Your task to perform on an android device: turn off picture-in-picture Image 0: 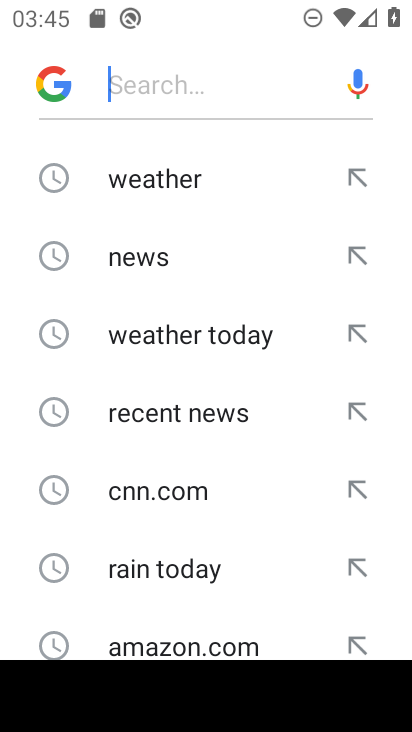
Step 0: press back button
Your task to perform on an android device: turn off picture-in-picture Image 1: 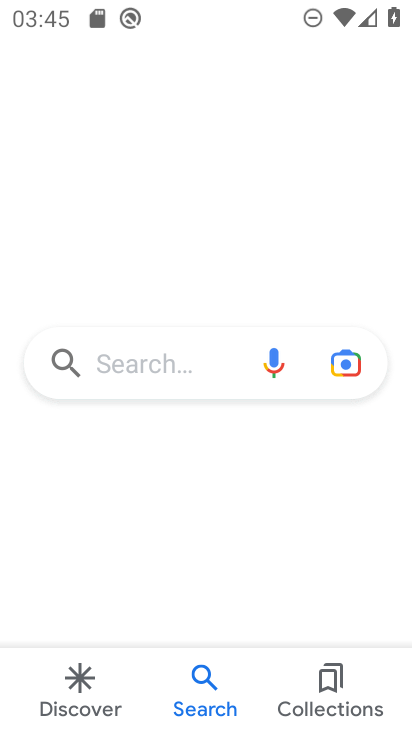
Step 1: press back button
Your task to perform on an android device: turn off picture-in-picture Image 2: 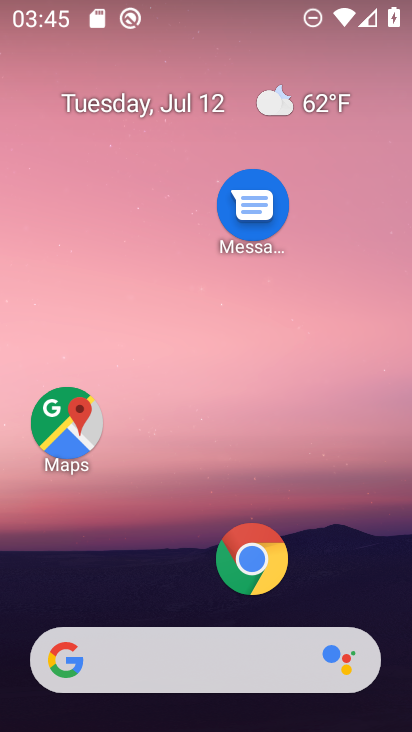
Step 2: drag from (117, 609) to (252, 4)
Your task to perform on an android device: turn off picture-in-picture Image 3: 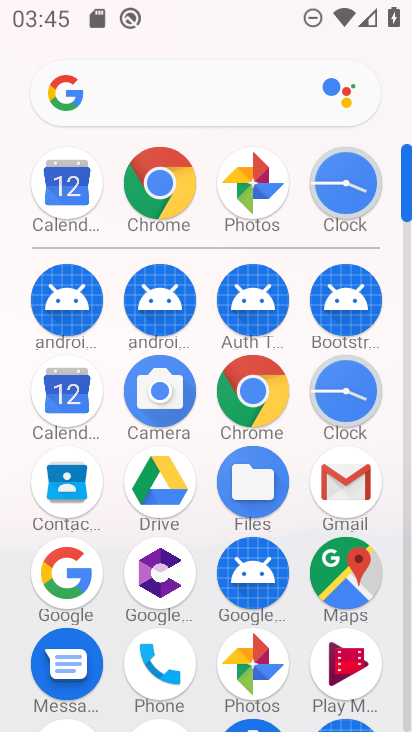
Step 3: drag from (163, 629) to (264, 53)
Your task to perform on an android device: turn off picture-in-picture Image 4: 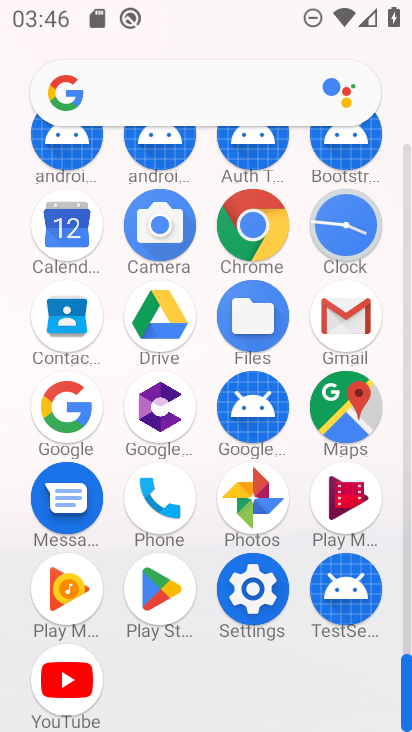
Step 4: click (253, 566)
Your task to perform on an android device: turn off picture-in-picture Image 5: 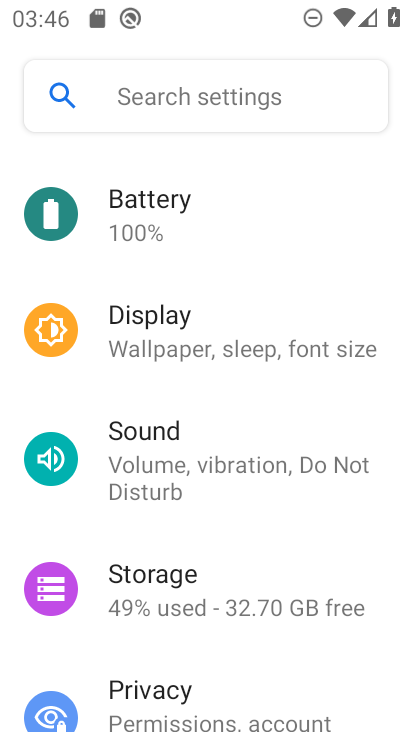
Step 5: drag from (223, 220) to (172, 698)
Your task to perform on an android device: turn off picture-in-picture Image 6: 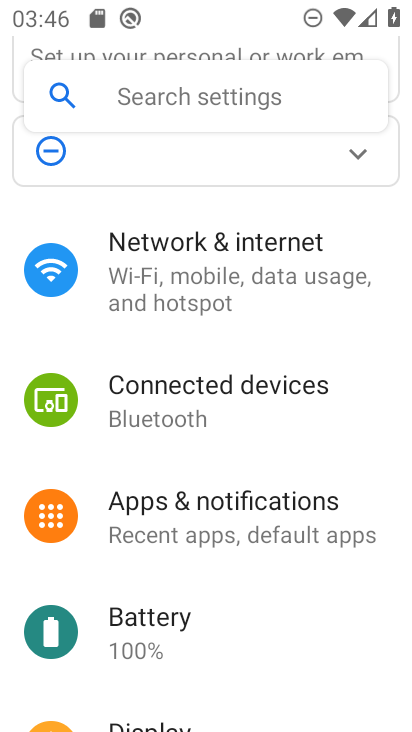
Step 6: click (198, 510)
Your task to perform on an android device: turn off picture-in-picture Image 7: 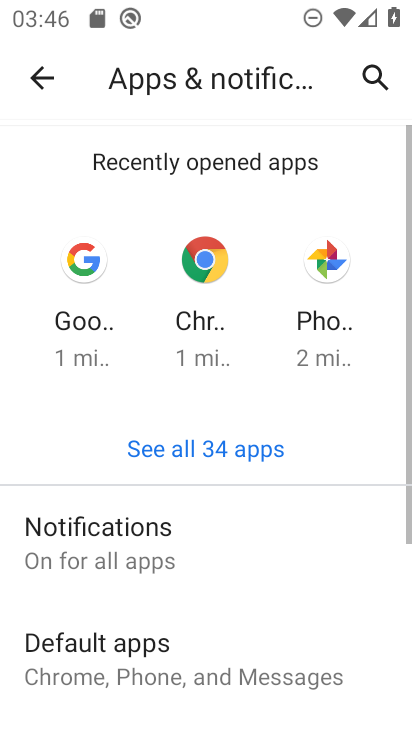
Step 7: drag from (175, 558) to (233, 177)
Your task to perform on an android device: turn off picture-in-picture Image 8: 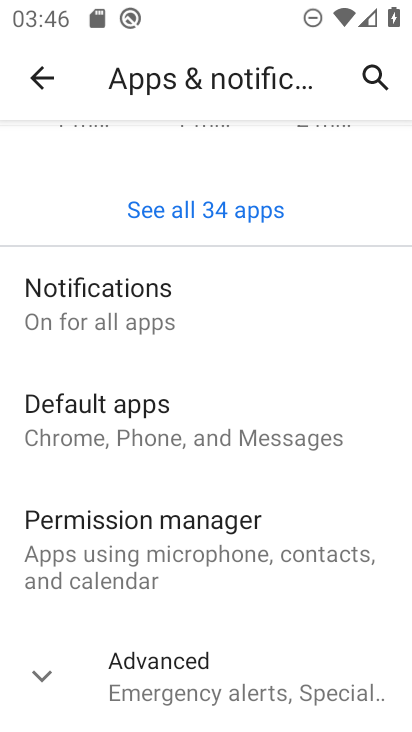
Step 8: click (159, 648)
Your task to perform on an android device: turn off picture-in-picture Image 9: 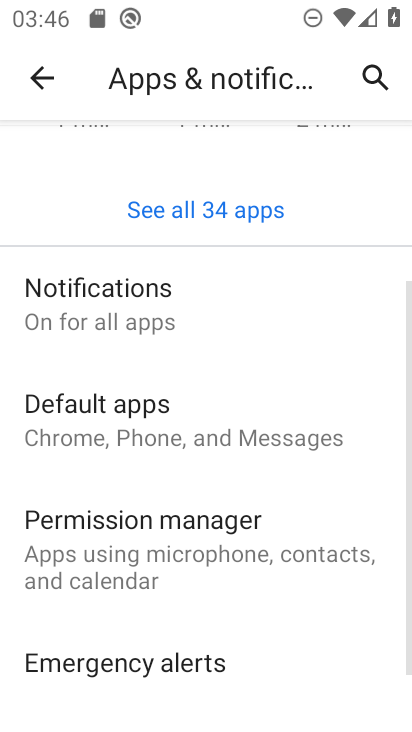
Step 9: drag from (162, 612) to (234, 170)
Your task to perform on an android device: turn off picture-in-picture Image 10: 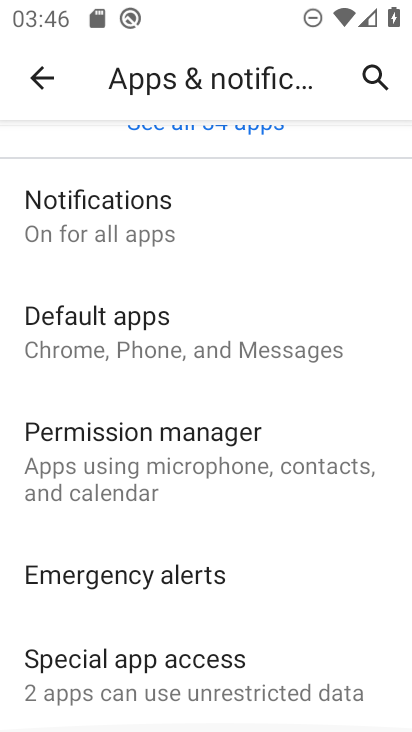
Step 10: click (121, 672)
Your task to perform on an android device: turn off picture-in-picture Image 11: 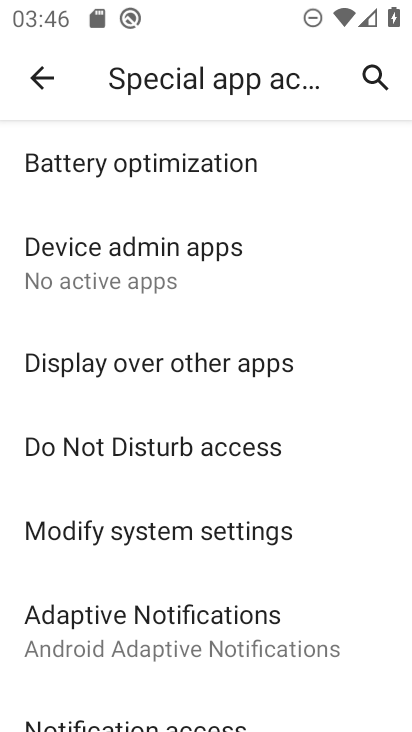
Step 11: drag from (151, 706) to (247, 97)
Your task to perform on an android device: turn off picture-in-picture Image 12: 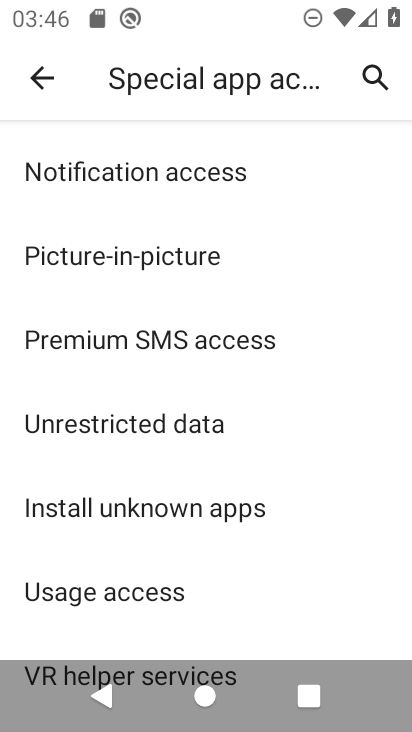
Step 12: click (108, 261)
Your task to perform on an android device: turn off picture-in-picture Image 13: 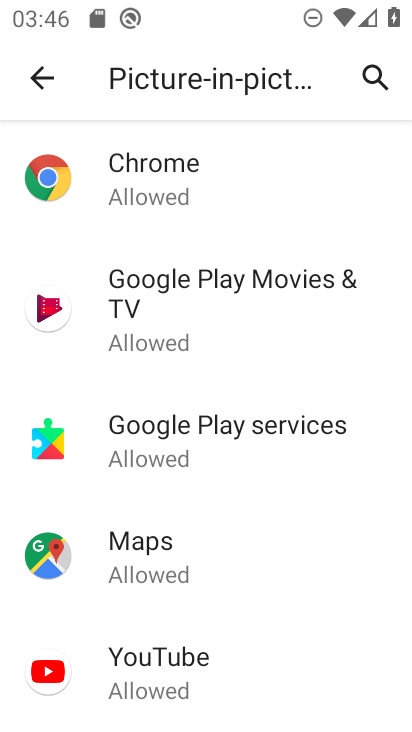
Step 13: click (152, 184)
Your task to perform on an android device: turn off picture-in-picture Image 14: 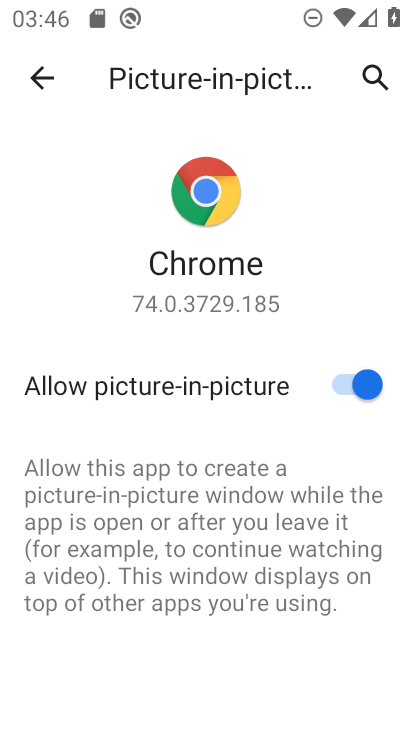
Step 14: click (363, 386)
Your task to perform on an android device: turn off picture-in-picture Image 15: 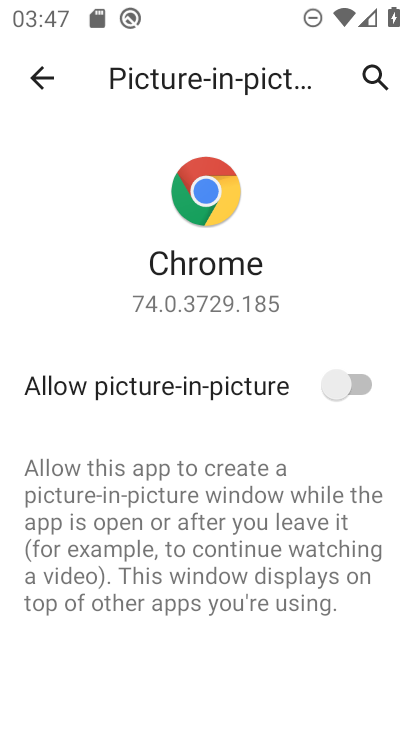
Step 15: task complete